Your task to perform on an android device: turn on bluetooth scan Image 0: 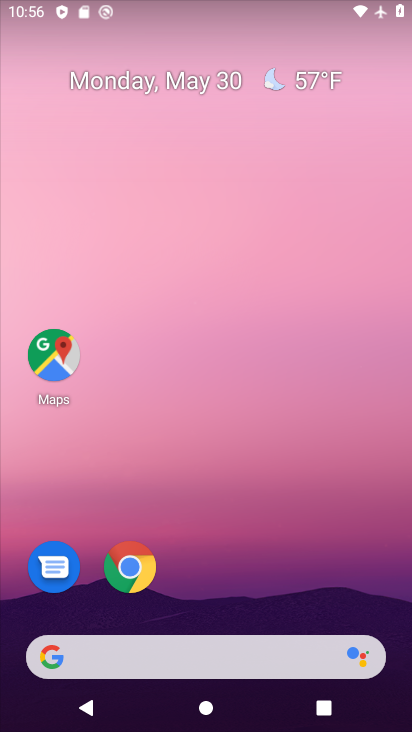
Step 0: drag from (176, 551) to (168, 161)
Your task to perform on an android device: turn on bluetooth scan Image 1: 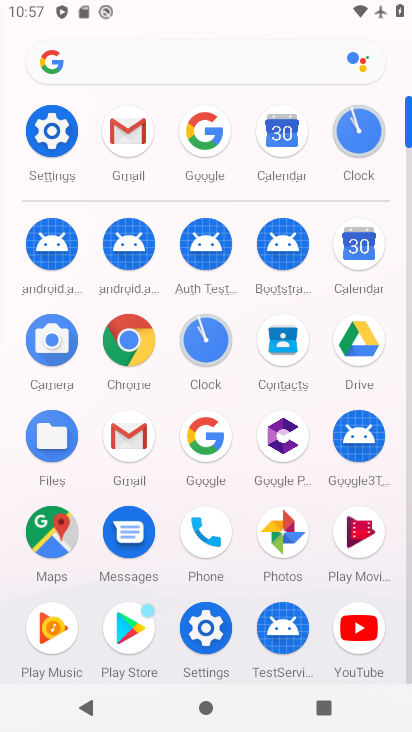
Step 1: click (61, 135)
Your task to perform on an android device: turn on bluetooth scan Image 2: 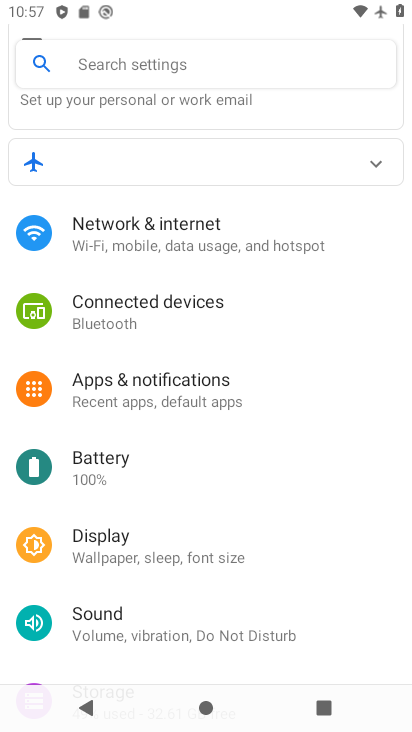
Step 2: drag from (299, 570) to (268, 361)
Your task to perform on an android device: turn on bluetooth scan Image 3: 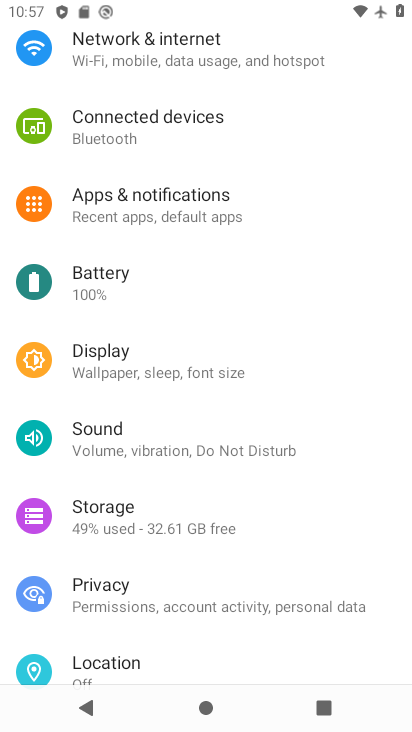
Step 3: click (147, 47)
Your task to perform on an android device: turn on bluetooth scan Image 4: 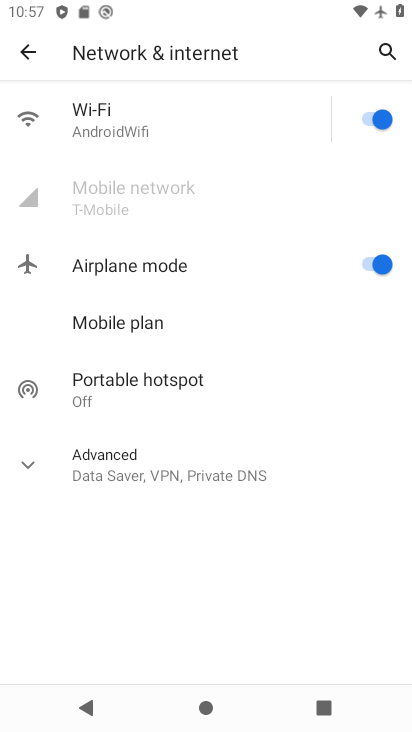
Step 4: click (31, 64)
Your task to perform on an android device: turn on bluetooth scan Image 5: 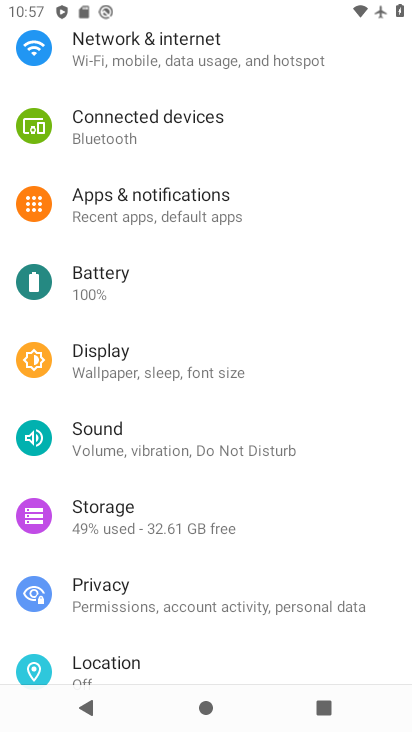
Step 5: drag from (184, 616) to (189, 318)
Your task to perform on an android device: turn on bluetooth scan Image 6: 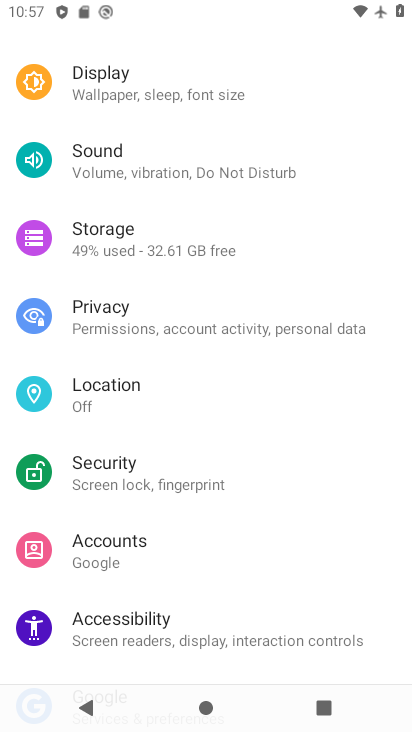
Step 6: click (185, 415)
Your task to perform on an android device: turn on bluetooth scan Image 7: 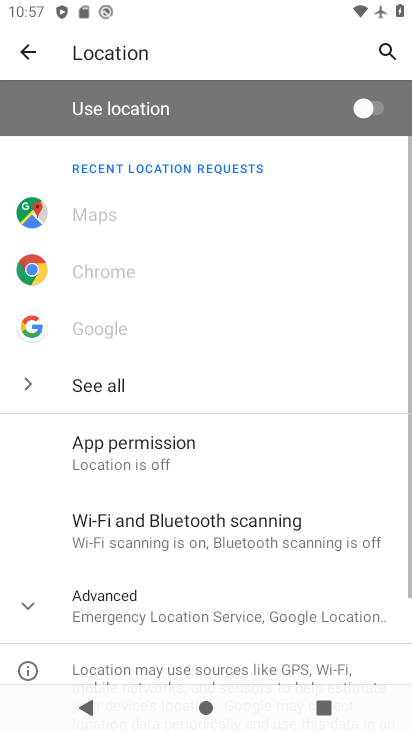
Step 7: click (213, 520)
Your task to perform on an android device: turn on bluetooth scan Image 8: 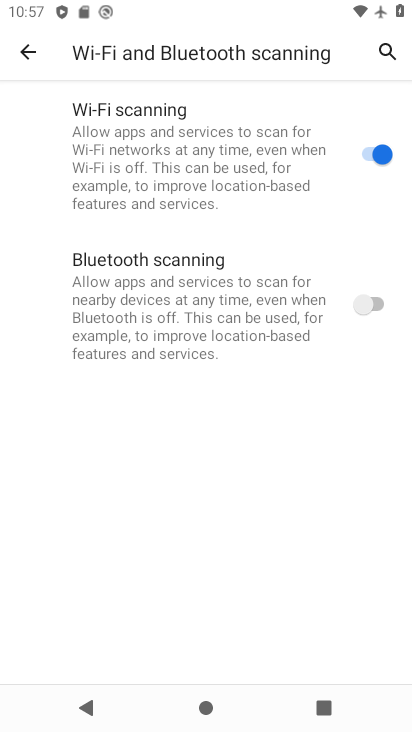
Step 8: click (371, 301)
Your task to perform on an android device: turn on bluetooth scan Image 9: 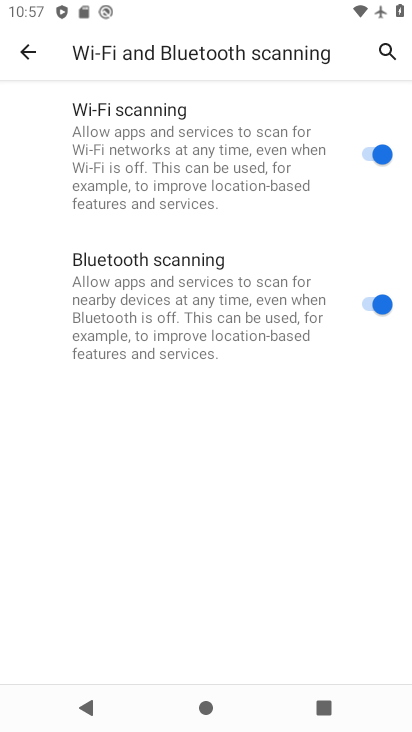
Step 9: task complete